Your task to perform on an android device: What's on my calendar today? Image 0: 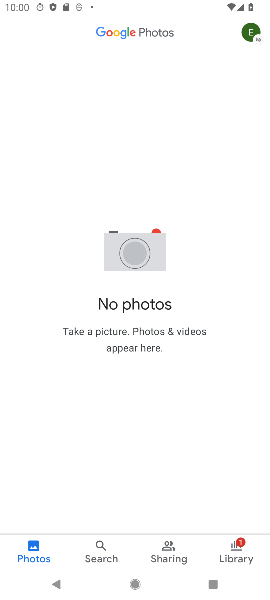
Step 0: press home button
Your task to perform on an android device: What's on my calendar today? Image 1: 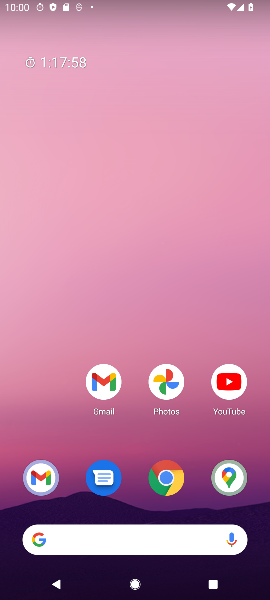
Step 1: drag from (195, 478) to (193, 26)
Your task to perform on an android device: What's on my calendar today? Image 2: 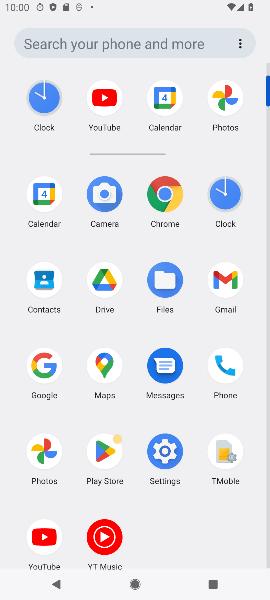
Step 2: click (39, 194)
Your task to perform on an android device: What's on my calendar today? Image 3: 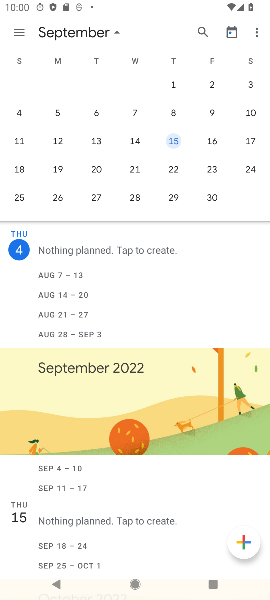
Step 3: drag from (71, 89) to (256, 97)
Your task to perform on an android device: What's on my calendar today? Image 4: 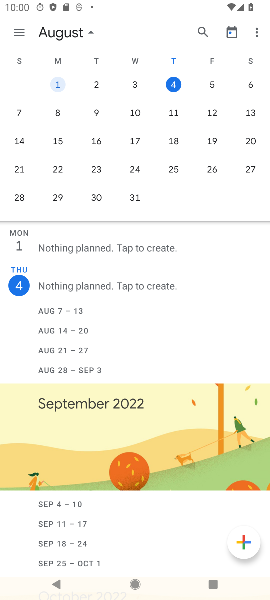
Step 4: drag from (29, 84) to (268, 82)
Your task to perform on an android device: What's on my calendar today? Image 5: 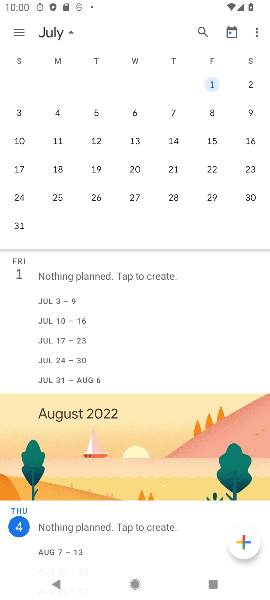
Step 5: drag from (243, 92) to (2, 47)
Your task to perform on an android device: What's on my calendar today? Image 6: 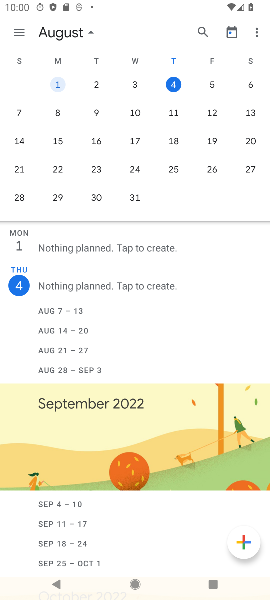
Step 6: click (172, 77)
Your task to perform on an android device: What's on my calendar today? Image 7: 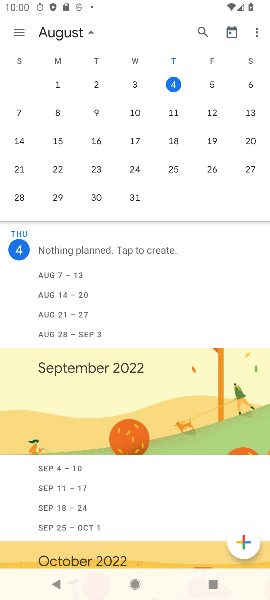
Step 7: task complete